Your task to perform on an android device: Search for "logitech g933" on newegg, select the first entry, and add it to the cart. Image 0: 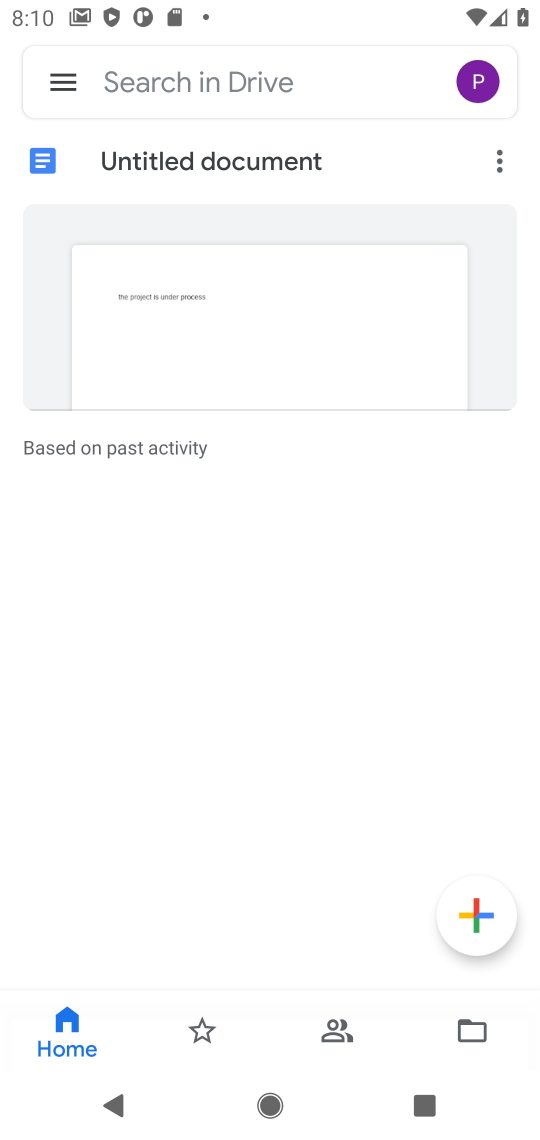
Step 0: press home button
Your task to perform on an android device: Search for "logitech g933" on newegg, select the first entry, and add it to the cart. Image 1: 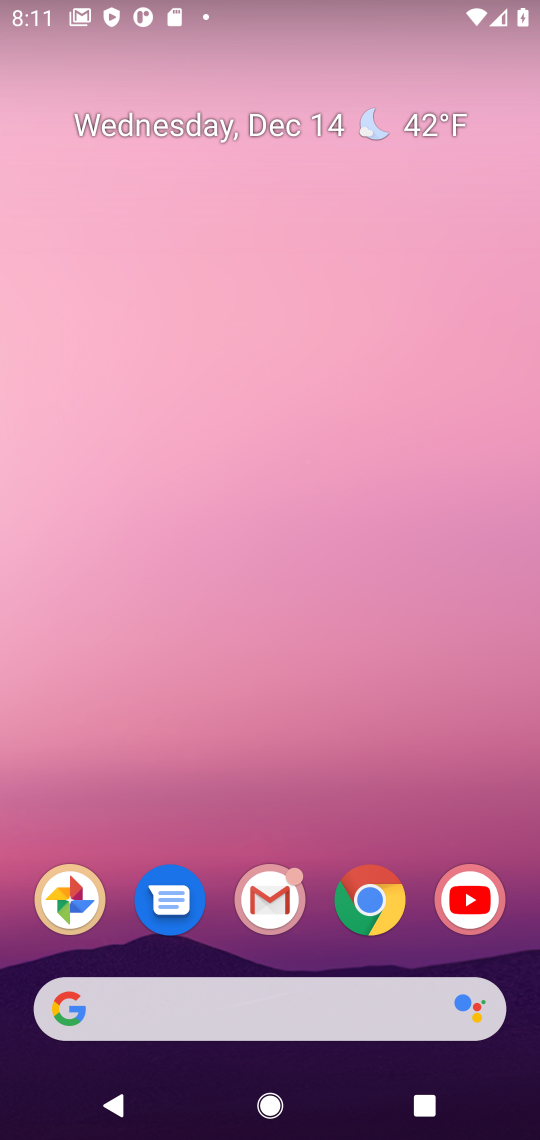
Step 1: click (376, 908)
Your task to perform on an android device: Search for "logitech g933" on newegg, select the first entry, and add it to the cart. Image 2: 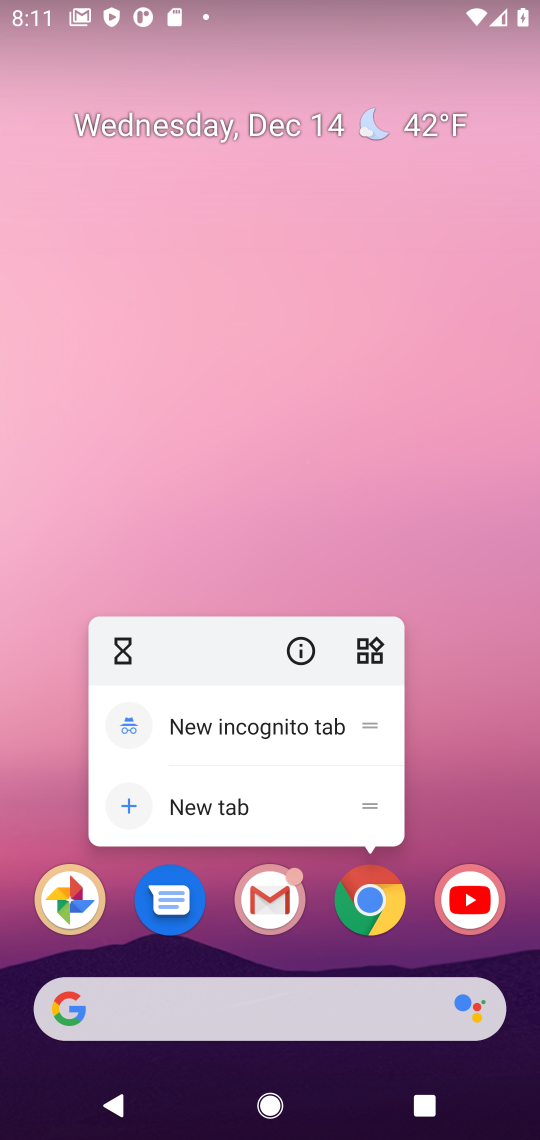
Step 2: click (376, 908)
Your task to perform on an android device: Search for "logitech g933" on newegg, select the first entry, and add it to the cart. Image 3: 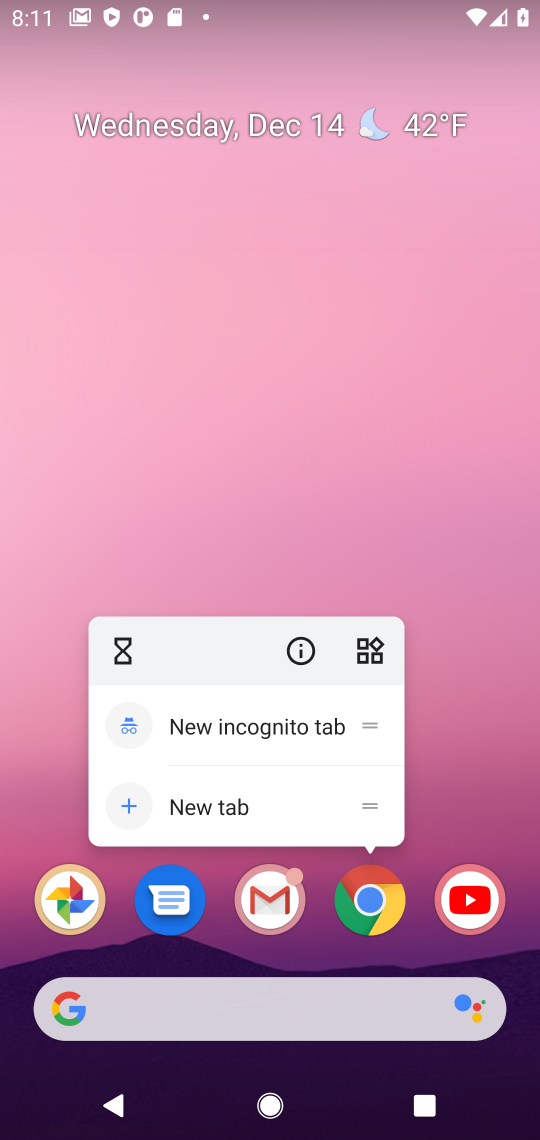
Step 3: click (376, 908)
Your task to perform on an android device: Search for "logitech g933" on newegg, select the first entry, and add it to the cart. Image 4: 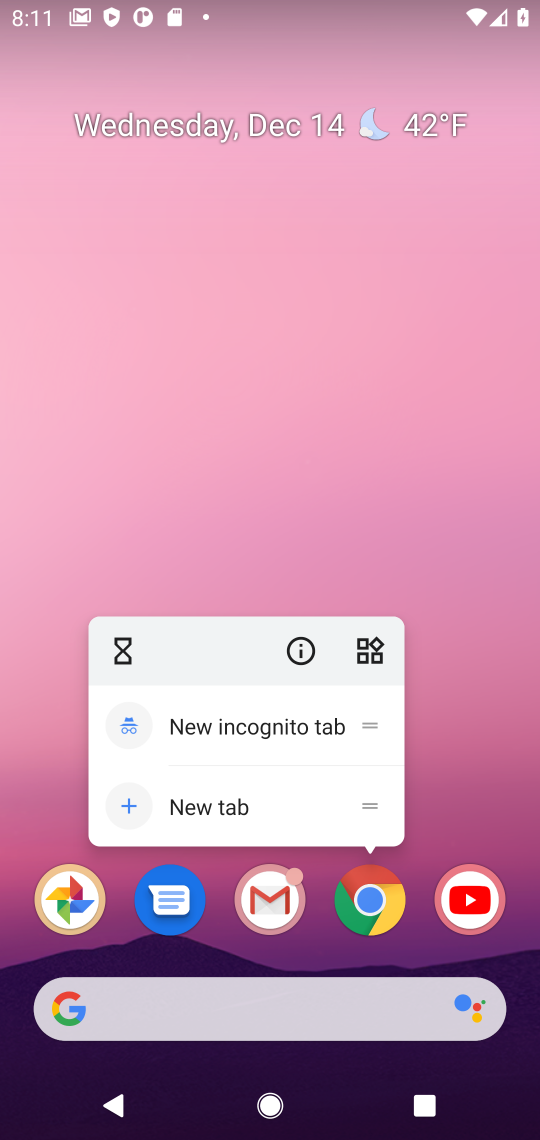
Step 4: click (435, 591)
Your task to perform on an android device: Search for "logitech g933" on newegg, select the first entry, and add it to the cart. Image 5: 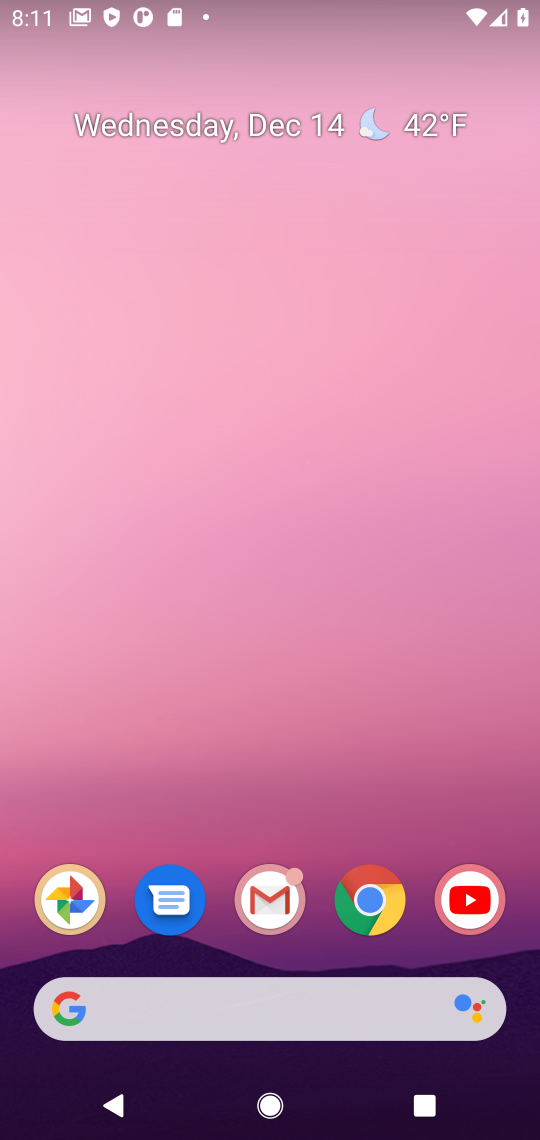
Step 5: click (371, 899)
Your task to perform on an android device: Search for "logitech g933" on newegg, select the first entry, and add it to the cart. Image 6: 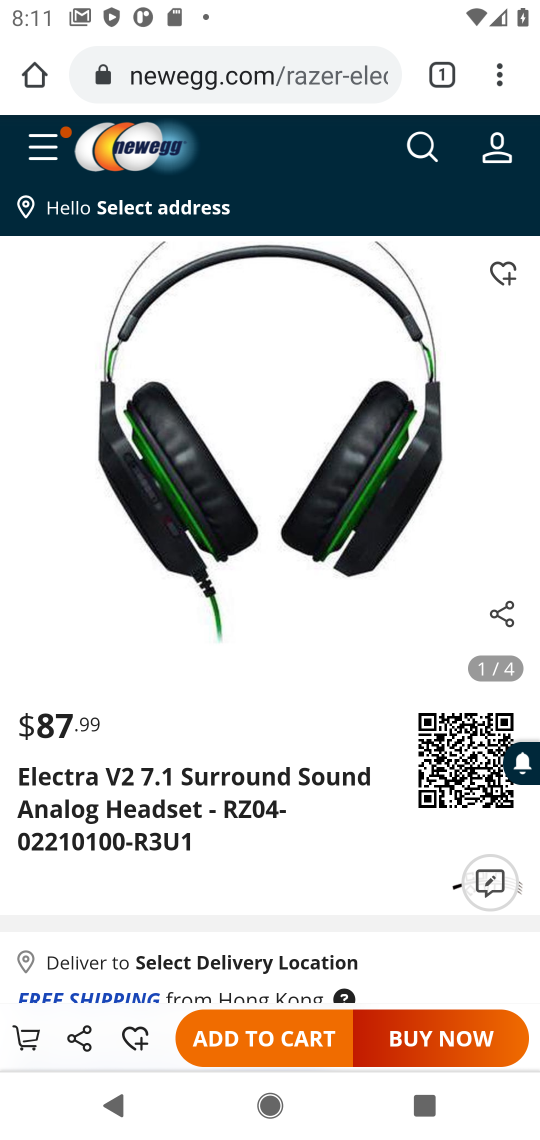
Step 6: click (421, 139)
Your task to perform on an android device: Search for "logitech g933" on newegg, select the first entry, and add it to the cart. Image 7: 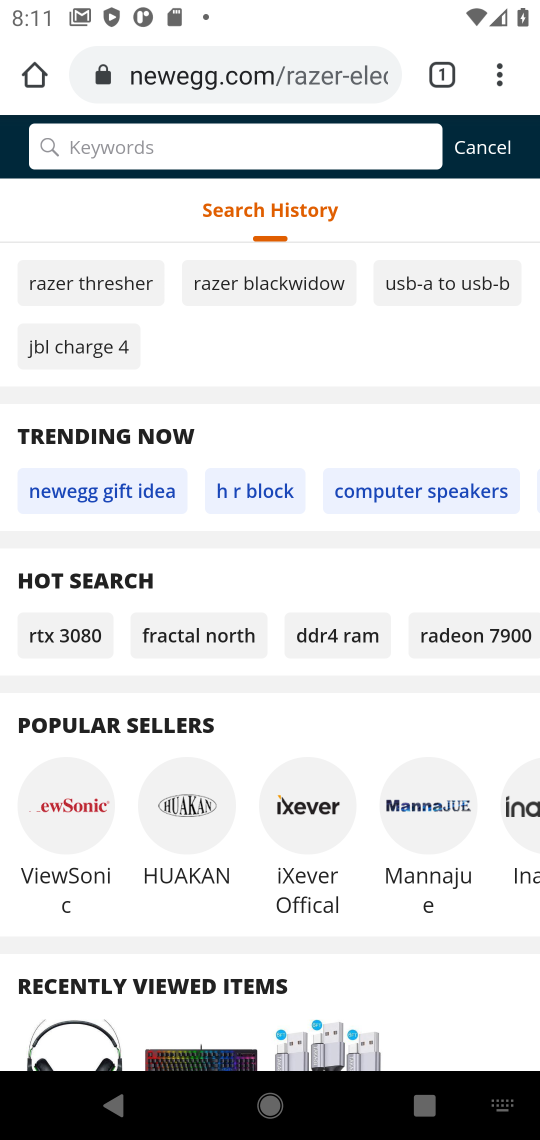
Step 7: type "logitech g933"
Your task to perform on an android device: Search for "logitech g933" on newegg, select the first entry, and add it to the cart. Image 8: 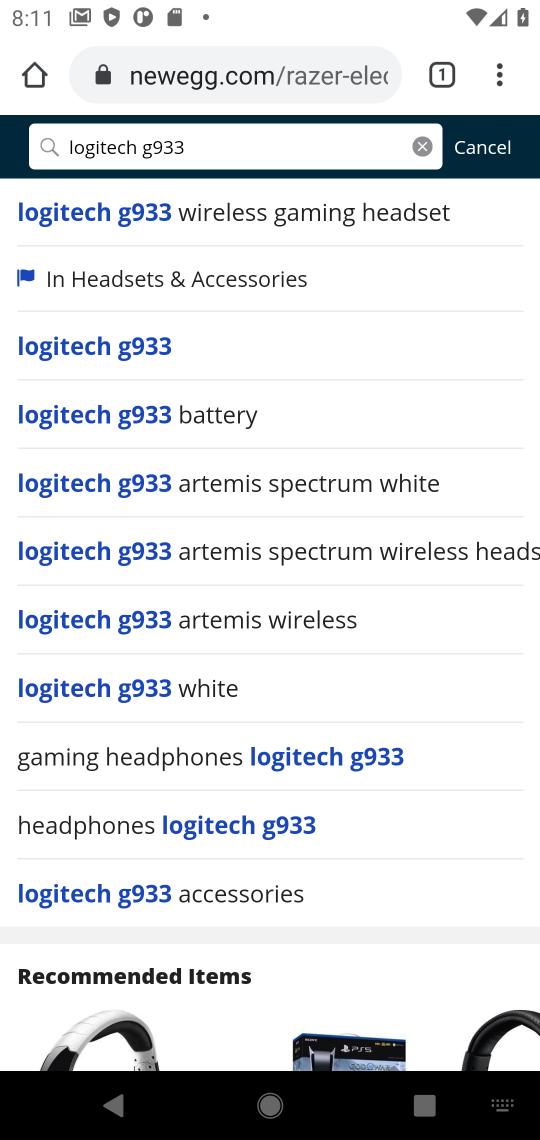
Step 8: click (128, 356)
Your task to perform on an android device: Search for "logitech g933" on newegg, select the first entry, and add it to the cart. Image 9: 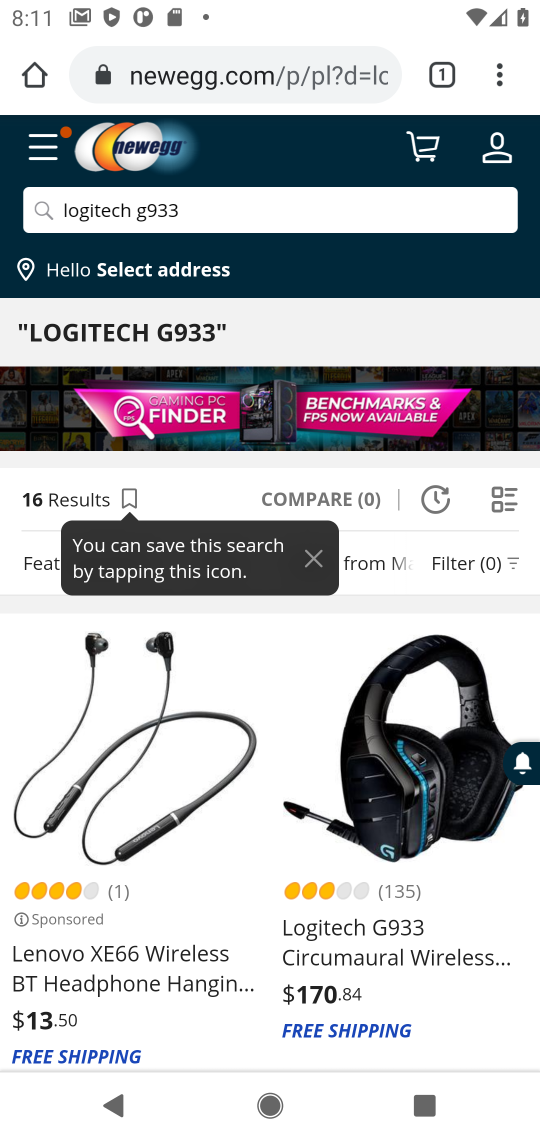
Step 9: task complete